Your task to perform on an android device: change your default location settings in chrome Image 0: 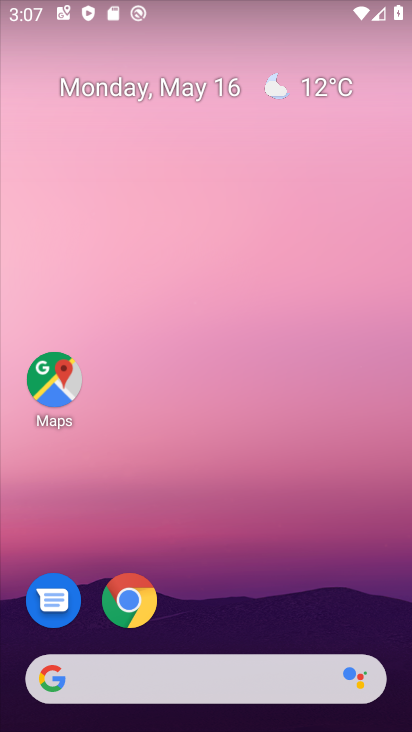
Step 0: click (145, 608)
Your task to perform on an android device: change your default location settings in chrome Image 1: 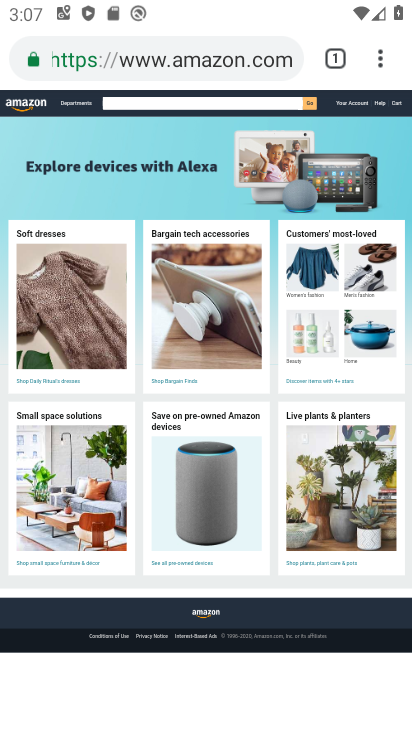
Step 1: click (385, 65)
Your task to perform on an android device: change your default location settings in chrome Image 2: 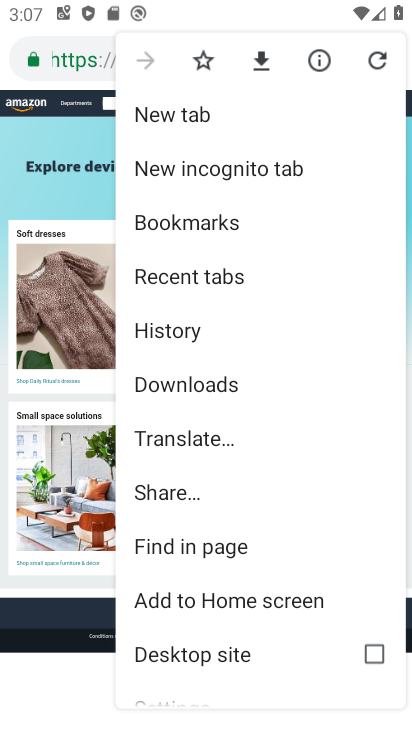
Step 2: drag from (229, 653) to (222, 58)
Your task to perform on an android device: change your default location settings in chrome Image 3: 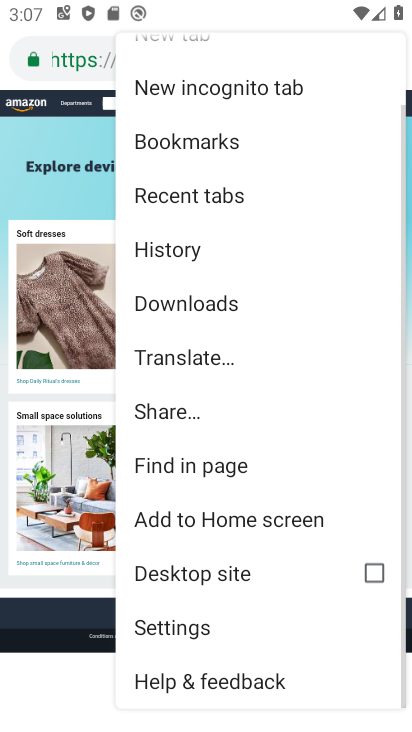
Step 3: click (194, 616)
Your task to perform on an android device: change your default location settings in chrome Image 4: 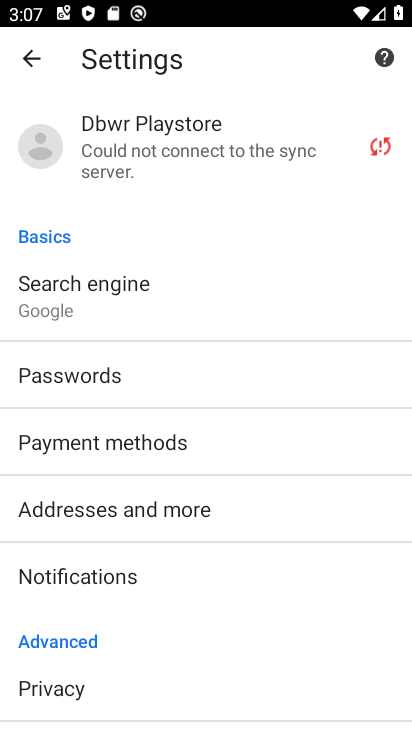
Step 4: drag from (178, 562) to (110, 144)
Your task to perform on an android device: change your default location settings in chrome Image 5: 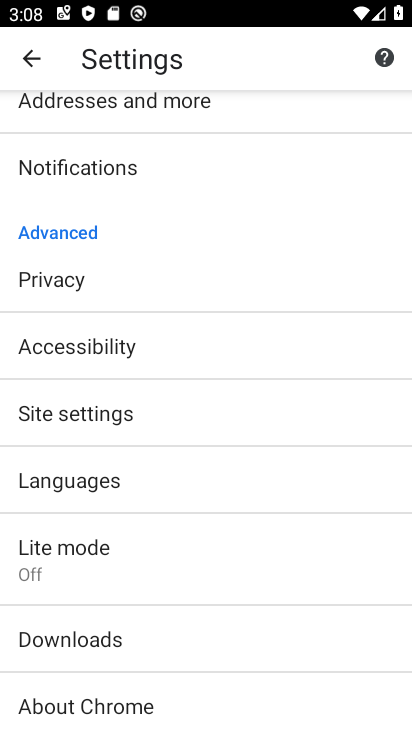
Step 5: click (97, 553)
Your task to perform on an android device: change your default location settings in chrome Image 6: 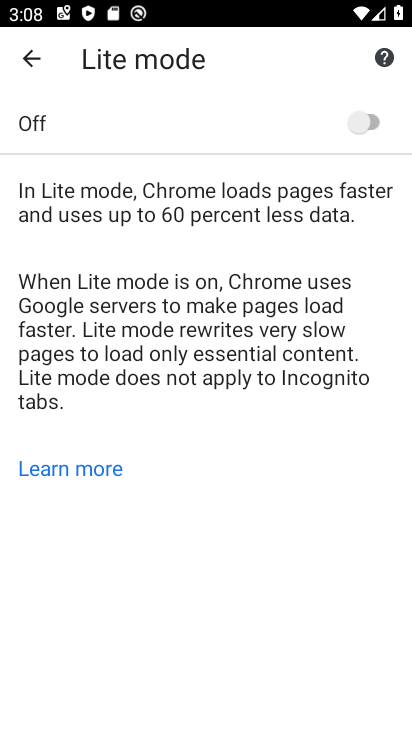
Step 6: click (25, 52)
Your task to perform on an android device: change your default location settings in chrome Image 7: 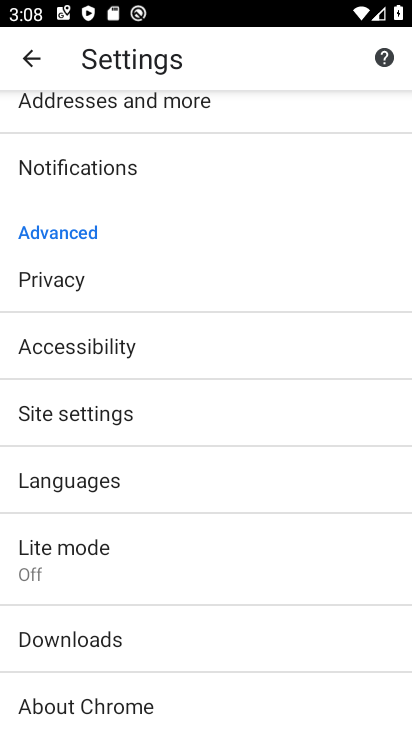
Step 7: click (87, 427)
Your task to perform on an android device: change your default location settings in chrome Image 8: 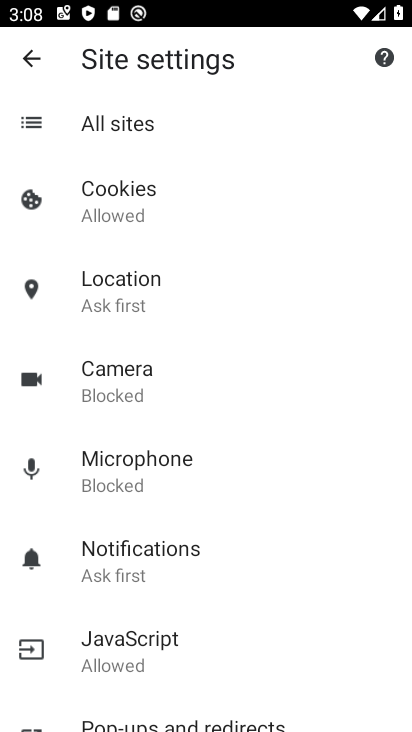
Step 8: click (132, 286)
Your task to perform on an android device: change your default location settings in chrome Image 9: 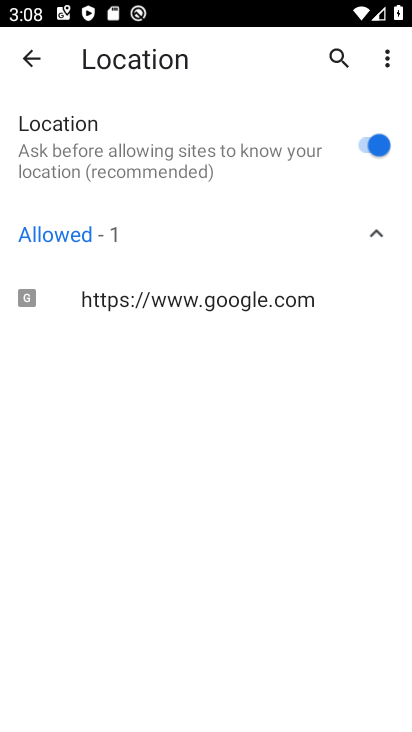
Step 9: click (356, 155)
Your task to perform on an android device: change your default location settings in chrome Image 10: 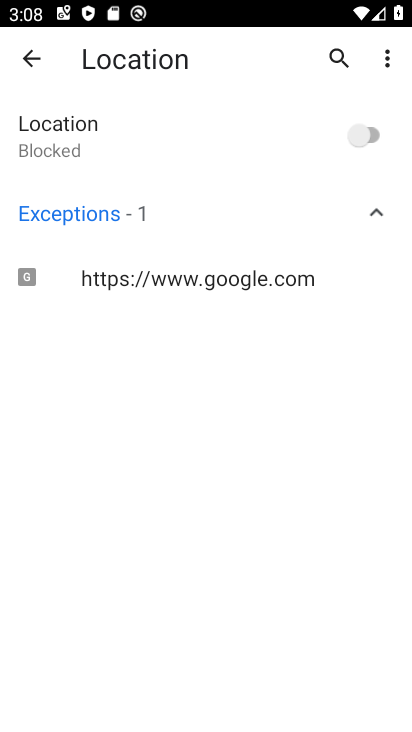
Step 10: task complete